Your task to perform on an android device: turn on location history Image 0: 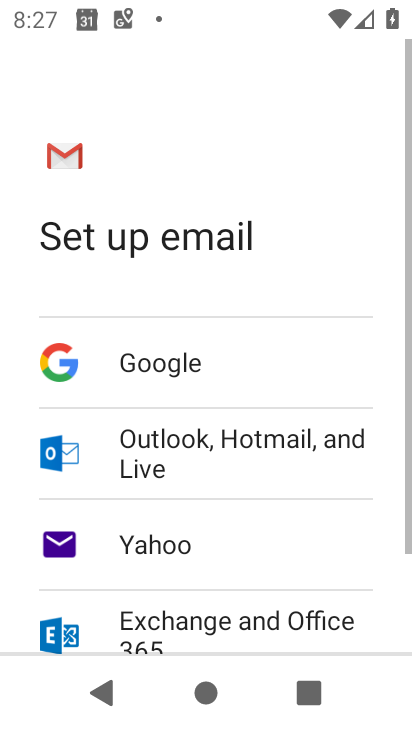
Step 0: press home button
Your task to perform on an android device: turn on location history Image 1: 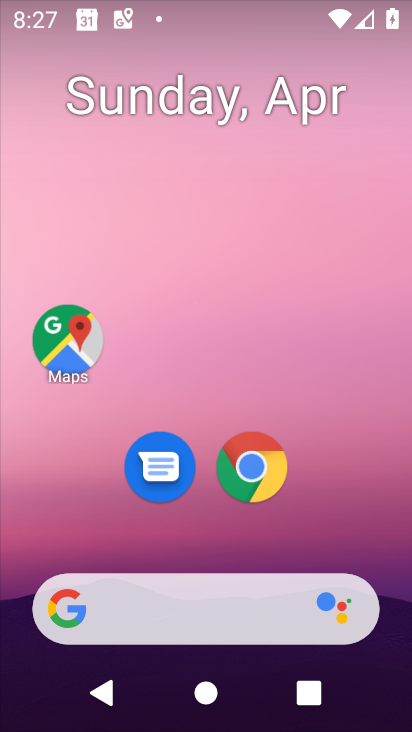
Step 1: drag from (294, 535) to (325, 110)
Your task to perform on an android device: turn on location history Image 2: 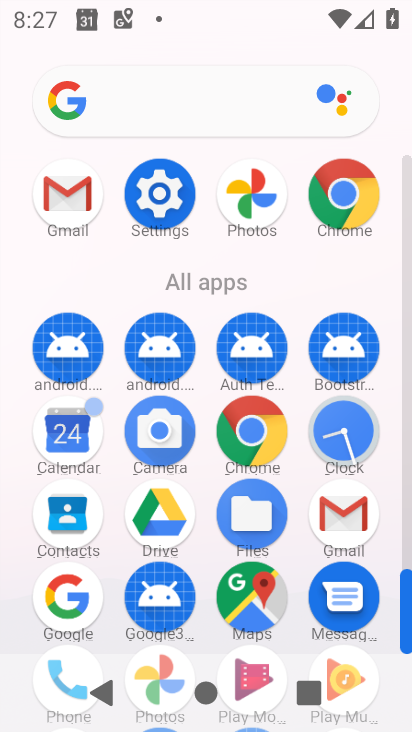
Step 2: click (154, 179)
Your task to perform on an android device: turn on location history Image 3: 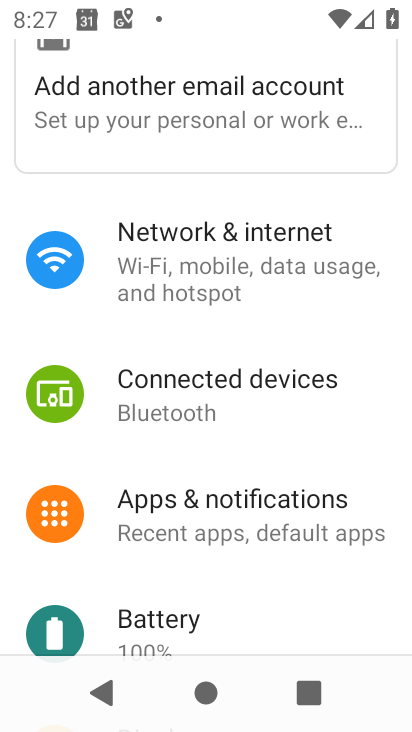
Step 3: drag from (204, 573) to (221, 412)
Your task to perform on an android device: turn on location history Image 4: 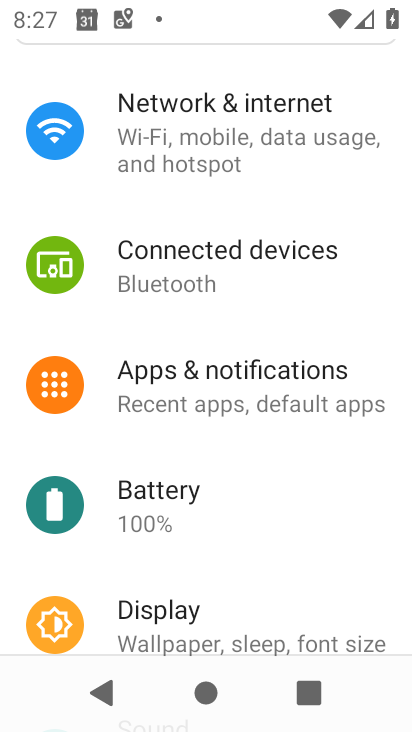
Step 4: drag from (207, 563) to (267, 283)
Your task to perform on an android device: turn on location history Image 5: 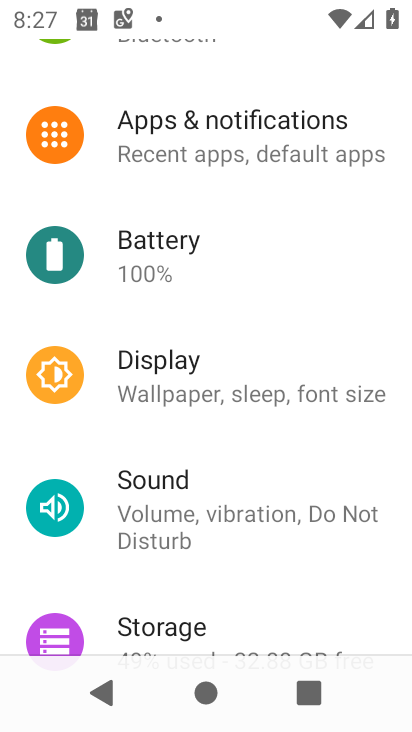
Step 5: drag from (238, 545) to (267, 327)
Your task to perform on an android device: turn on location history Image 6: 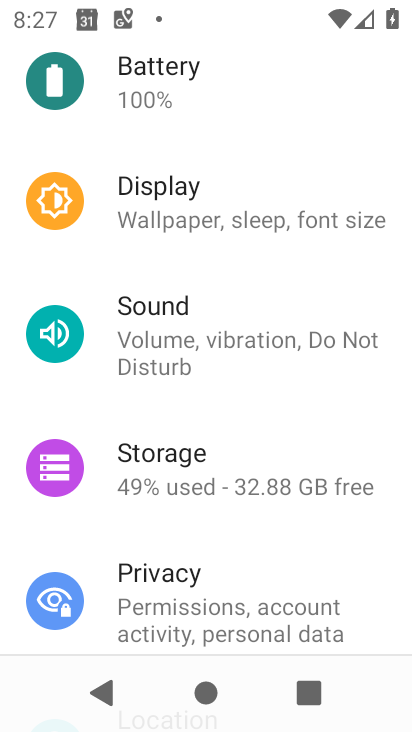
Step 6: drag from (239, 536) to (291, 306)
Your task to perform on an android device: turn on location history Image 7: 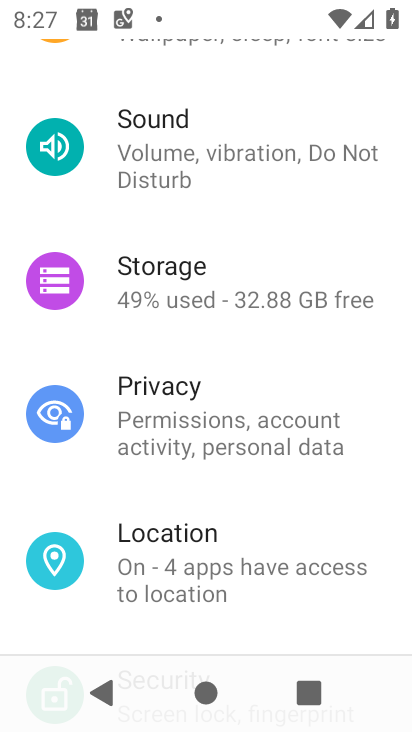
Step 7: click (225, 526)
Your task to perform on an android device: turn on location history Image 8: 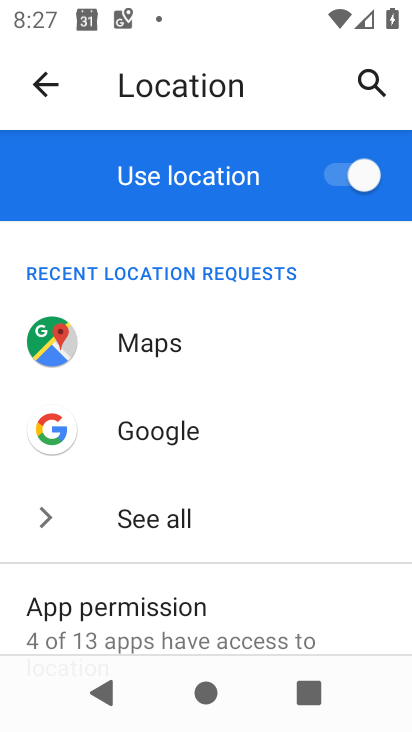
Step 8: drag from (216, 599) to (268, 413)
Your task to perform on an android device: turn on location history Image 9: 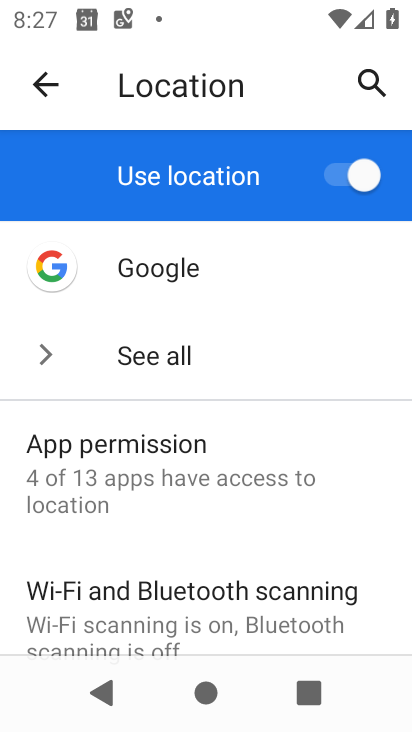
Step 9: drag from (219, 575) to (261, 433)
Your task to perform on an android device: turn on location history Image 10: 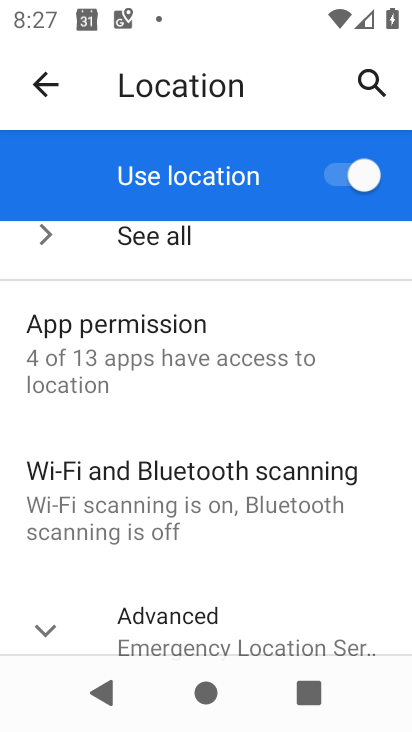
Step 10: click (267, 627)
Your task to perform on an android device: turn on location history Image 11: 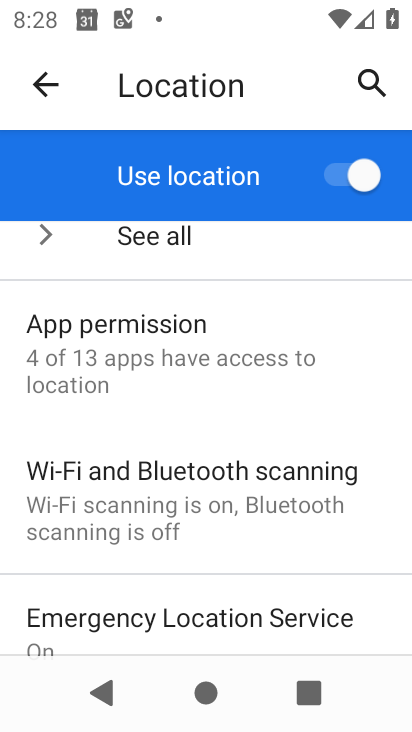
Step 11: drag from (271, 621) to (269, 353)
Your task to perform on an android device: turn on location history Image 12: 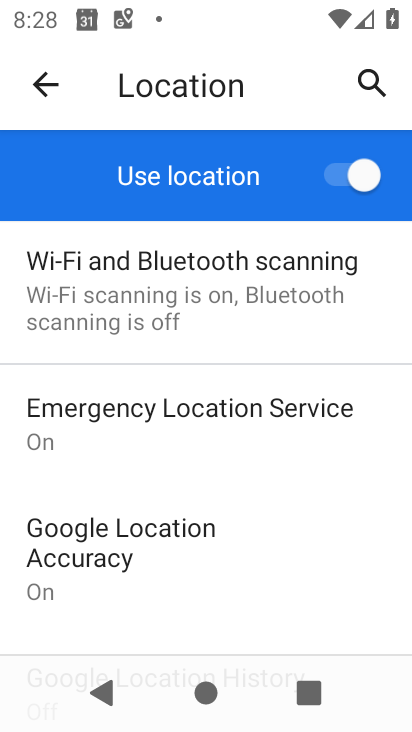
Step 12: drag from (191, 526) to (261, 367)
Your task to perform on an android device: turn on location history Image 13: 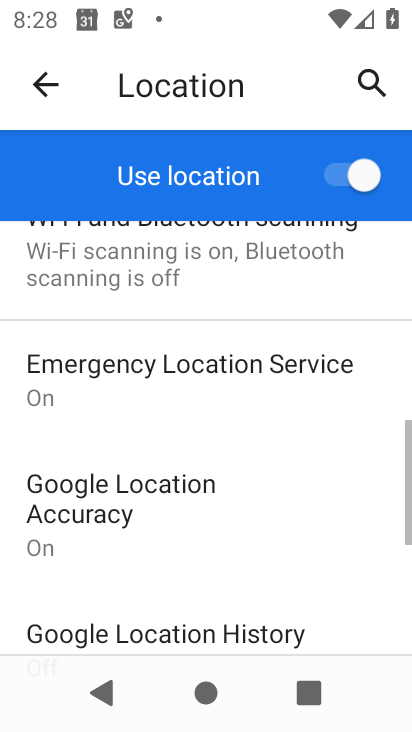
Step 13: click (316, 354)
Your task to perform on an android device: turn on location history Image 14: 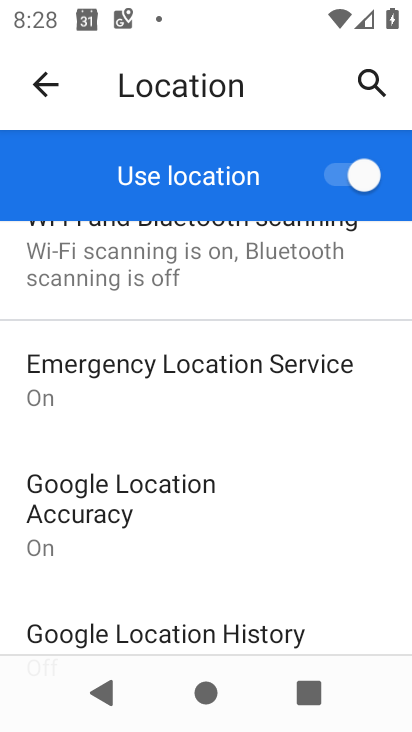
Step 14: drag from (279, 548) to (301, 382)
Your task to perform on an android device: turn on location history Image 15: 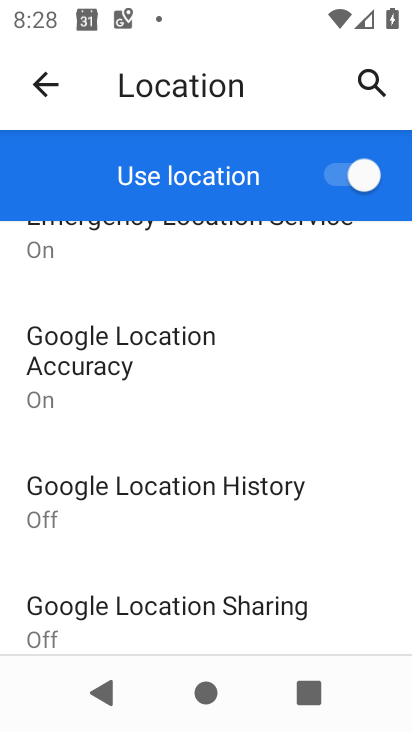
Step 15: click (303, 487)
Your task to perform on an android device: turn on location history Image 16: 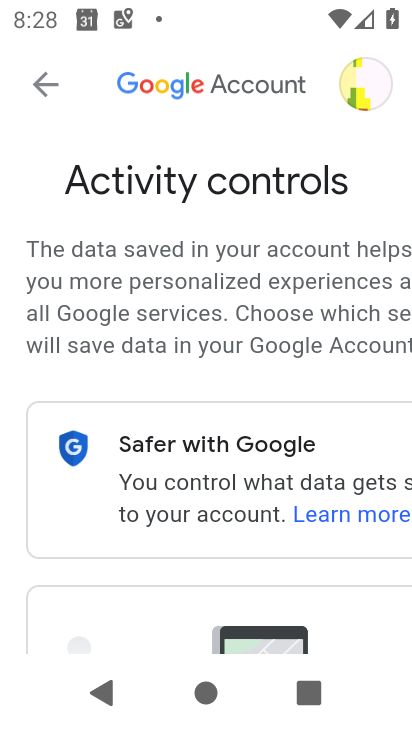
Step 16: task complete